Your task to perform on an android device: stop showing notifications on the lock screen Image 0: 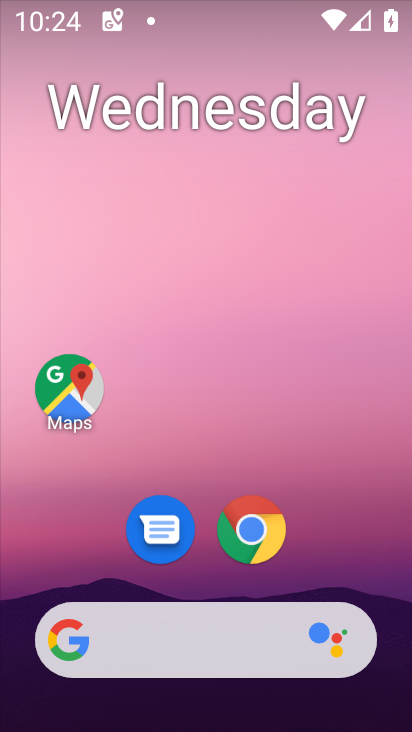
Step 0: drag from (392, 622) to (367, 114)
Your task to perform on an android device: stop showing notifications on the lock screen Image 1: 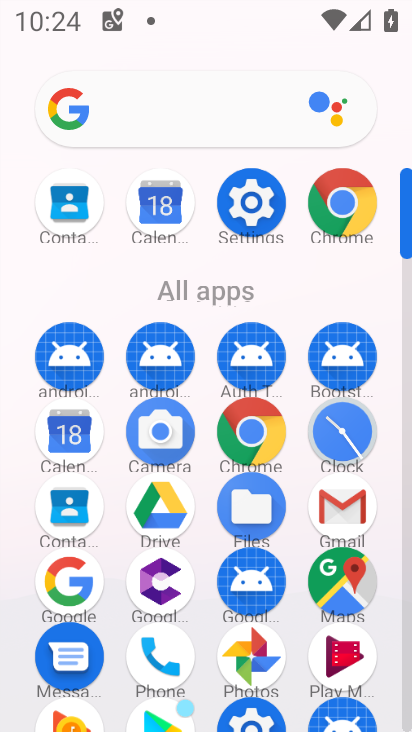
Step 1: click (406, 698)
Your task to perform on an android device: stop showing notifications on the lock screen Image 2: 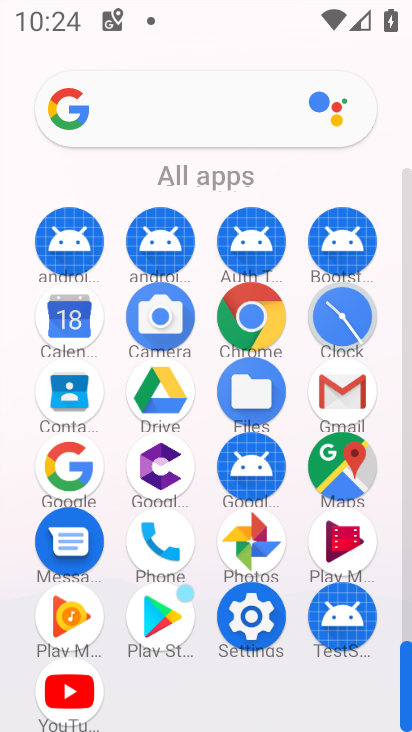
Step 2: click (250, 617)
Your task to perform on an android device: stop showing notifications on the lock screen Image 3: 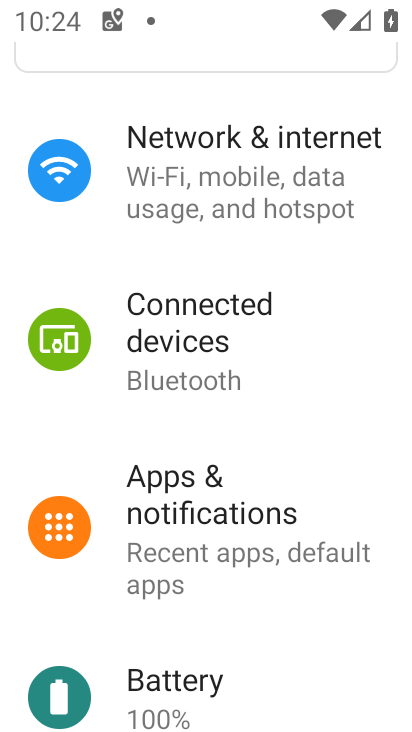
Step 3: click (199, 522)
Your task to perform on an android device: stop showing notifications on the lock screen Image 4: 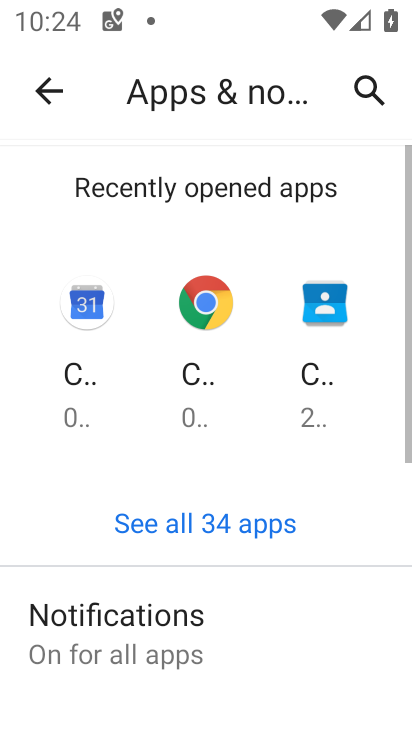
Step 4: drag from (258, 639) to (319, 319)
Your task to perform on an android device: stop showing notifications on the lock screen Image 5: 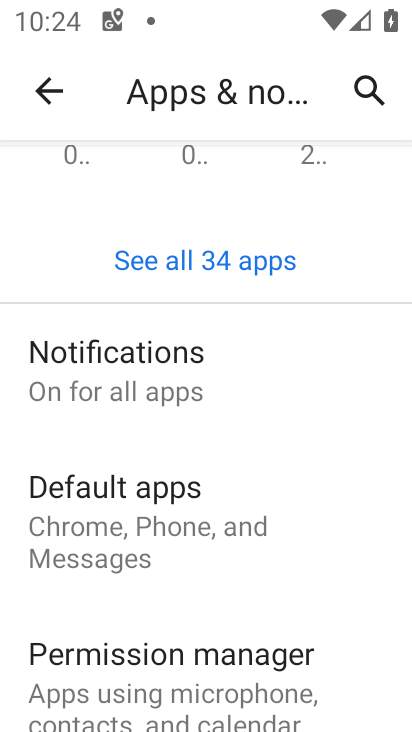
Step 5: click (115, 358)
Your task to perform on an android device: stop showing notifications on the lock screen Image 6: 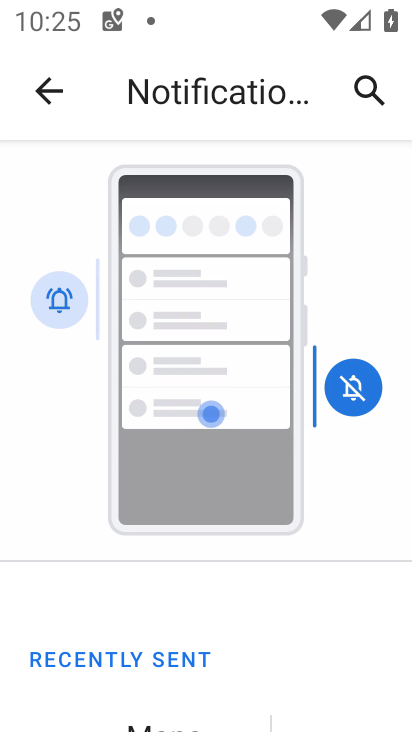
Step 6: drag from (312, 656) to (270, 217)
Your task to perform on an android device: stop showing notifications on the lock screen Image 7: 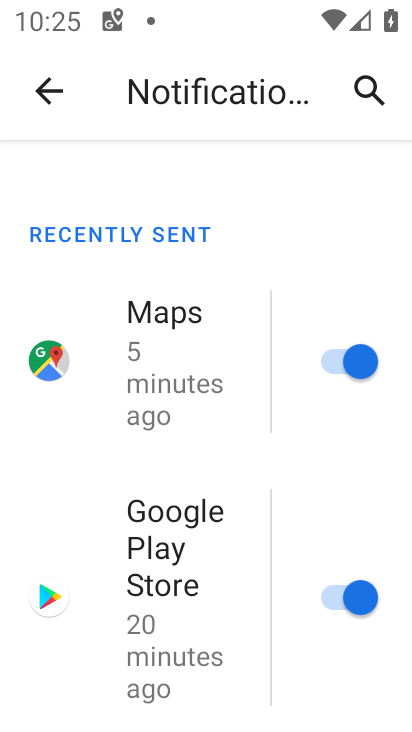
Step 7: drag from (273, 664) to (248, 137)
Your task to perform on an android device: stop showing notifications on the lock screen Image 8: 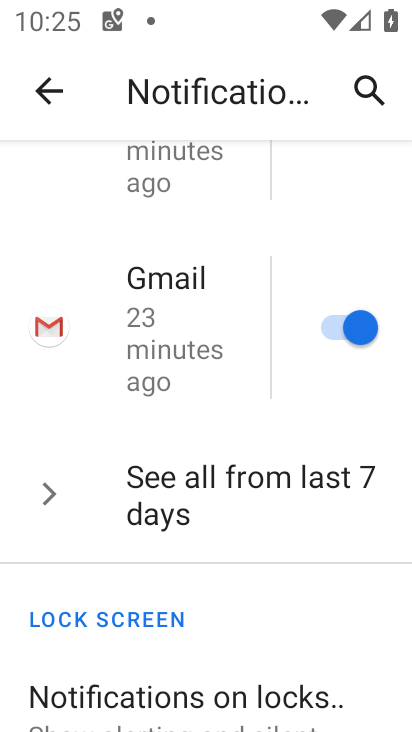
Step 8: drag from (285, 626) to (266, 189)
Your task to perform on an android device: stop showing notifications on the lock screen Image 9: 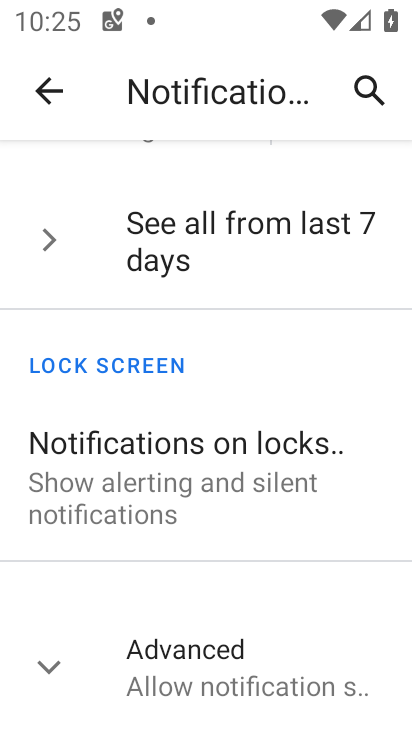
Step 9: click (139, 464)
Your task to perform on an android device: stop showing notifications on the lock screen Image 10: 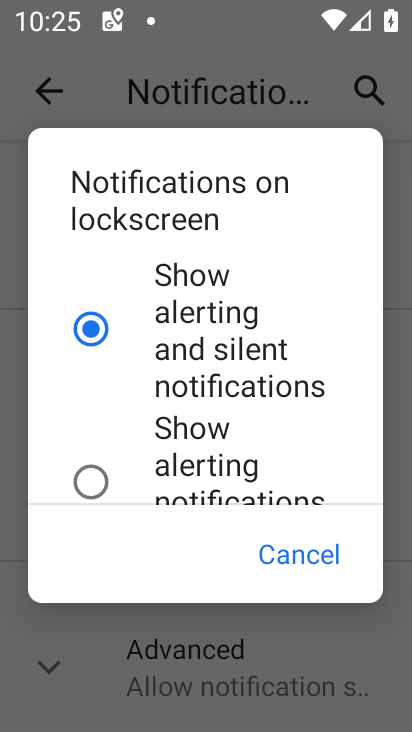
Step 10: drag from (213, 475) to (212, 93)
Your task to perform on an android device: stop showing notifications on the lock screen Image 11: 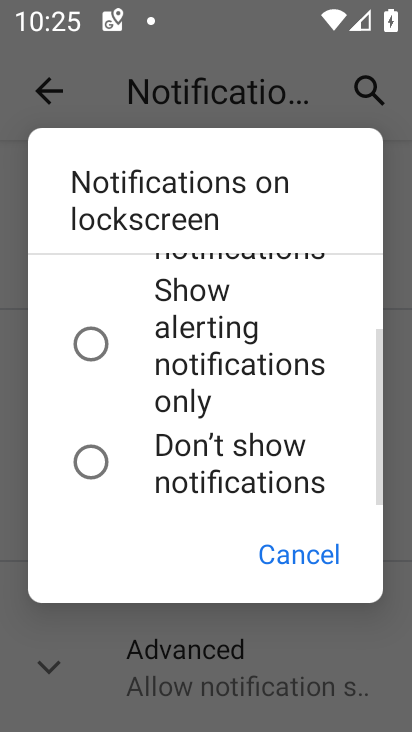
Step 11: click (87, 470)
Your task to perform on an android device: stop showing notifications on the lock screen Image 12: 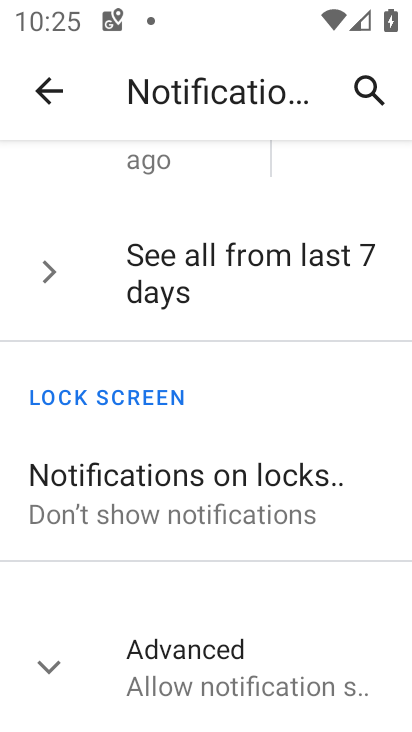
Step 12: task complete